Your task to perform on an android device: snooze an email in the gmail app Image 0: 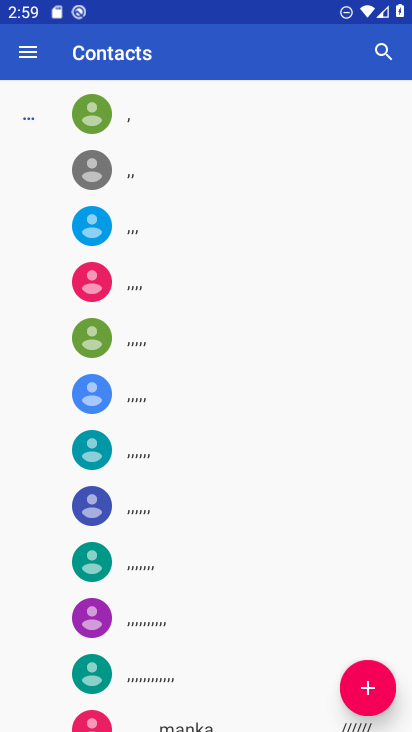
Step 0: press back button
Your task to perform on an android device: snooze an email in the gmail app Image 1: 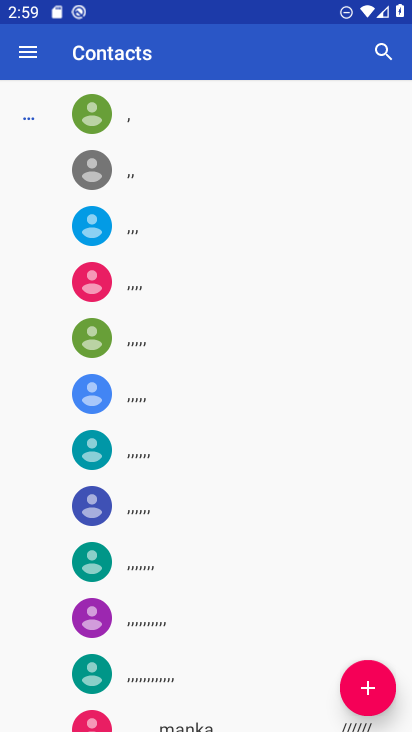
Step 1: press back button
Your task to perform on an android device: snooze an email in the gmail app Image 2: 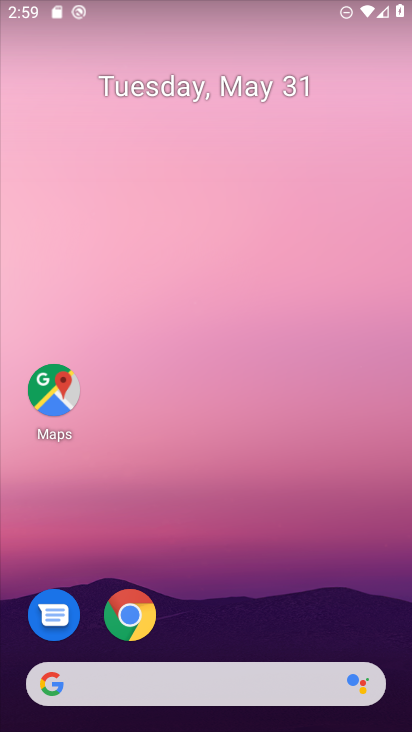
Step 2: drag from (236, 653) to (113, 139)
Your task to perform on an android device: snooze an email in the gmail app Image 3: 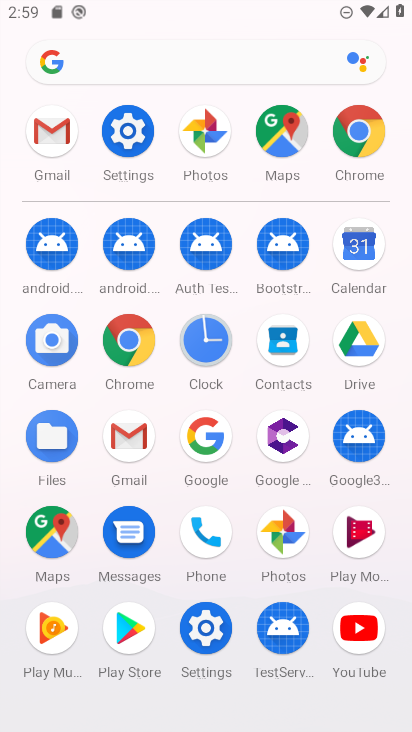
Step 3: click (128, 446)
Your task to perform on an android device: snooze an email in the gmail app Image 4: 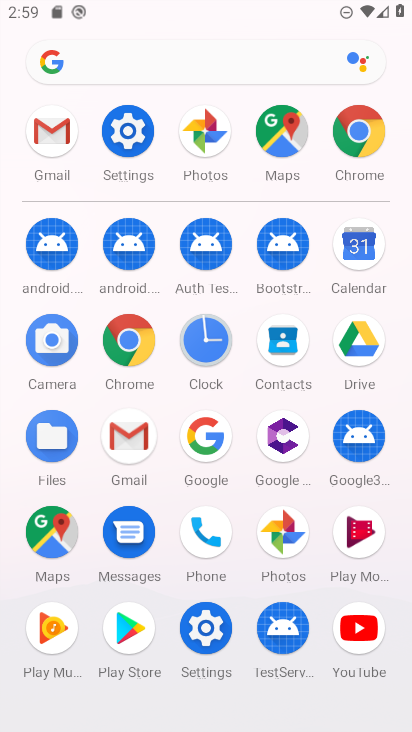
Step 4: click (130, 447)
Your task to perform on an android device: snooze an email in the gmail app Image 5: 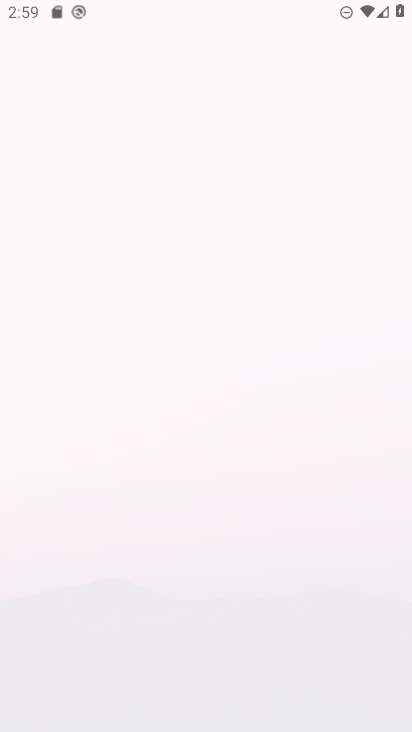
Step 5: click (136, 442)
Your task to perform on an android device: snooze an email in the gmail app Image 6: 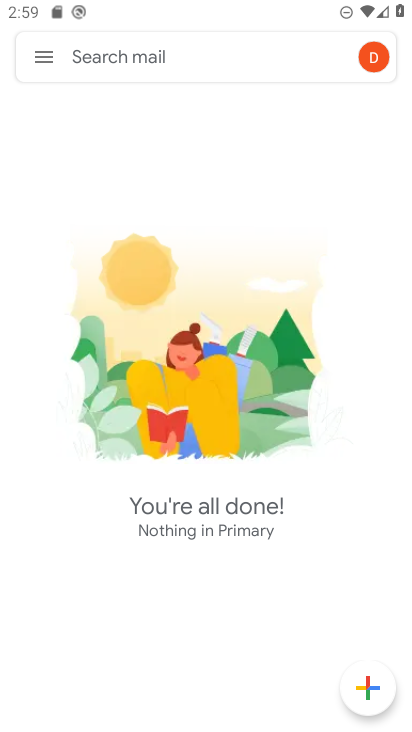
Step 6: click (55, 54)
Your task to perform on an android device: snooze an email in the gmail app Image 7: 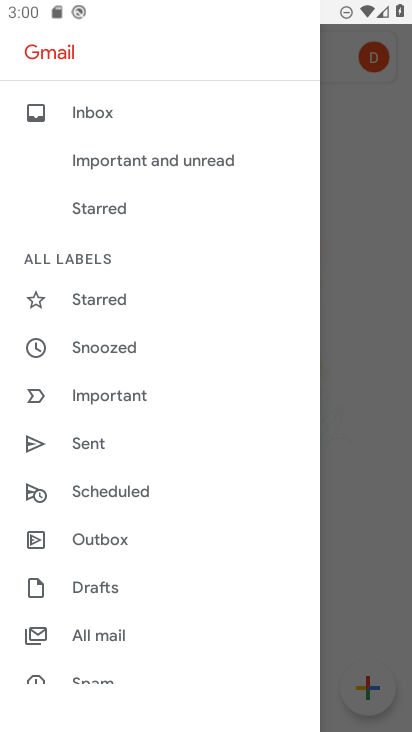
Step 7: drag from (108, 578) to (59, 80)
Your task to perform on an android device: snooze an email in the gmail app Image 8: 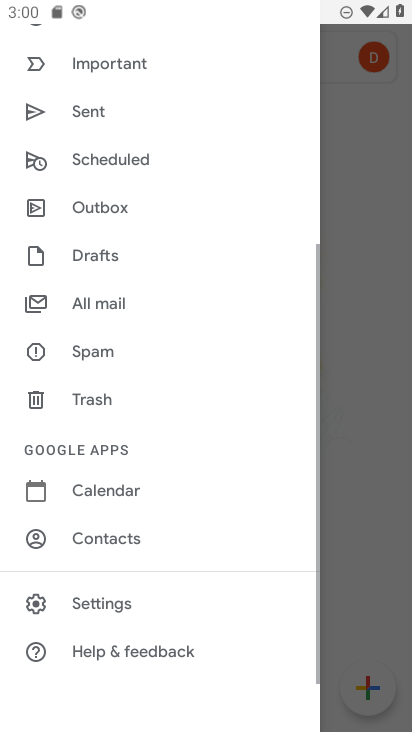
Step 8: drag from (121, 447) to (135, 105)
Your task to perform on an android device: snooze an email in the gmail app Image 9: 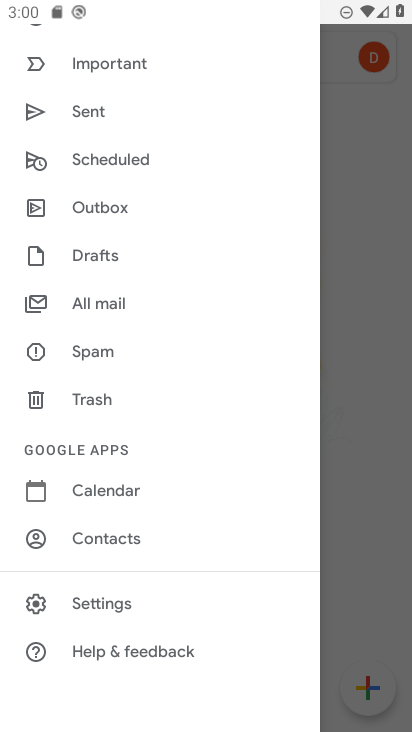
Step 9: drag from (87, 255) to (104, 602)
Your task to perform on an android device: snooze an email in the gmail app Image 10: 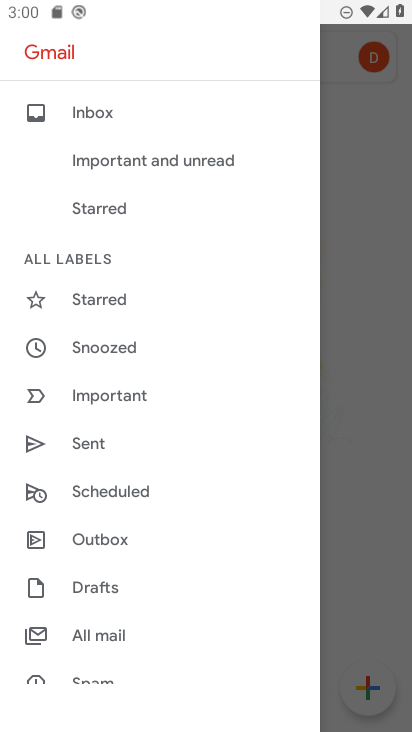
Step 10: click (101, 338)
Your task to perform on an android device: snooze an email in the gmail app Image 11: 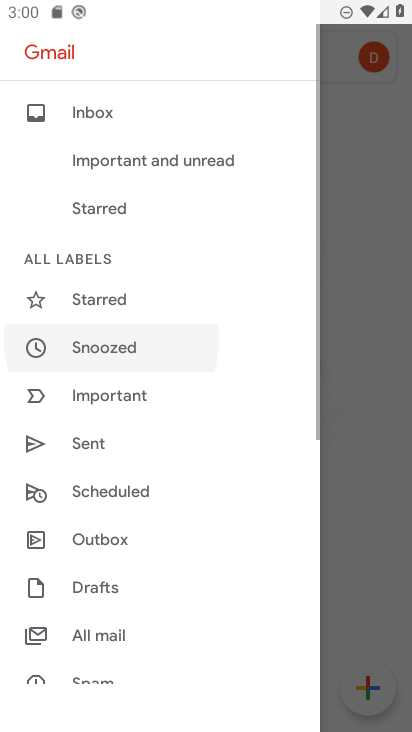
Step 11: click (101, 338)
Your task to perform on an android device: snooze an email in the gmail app Image 12: 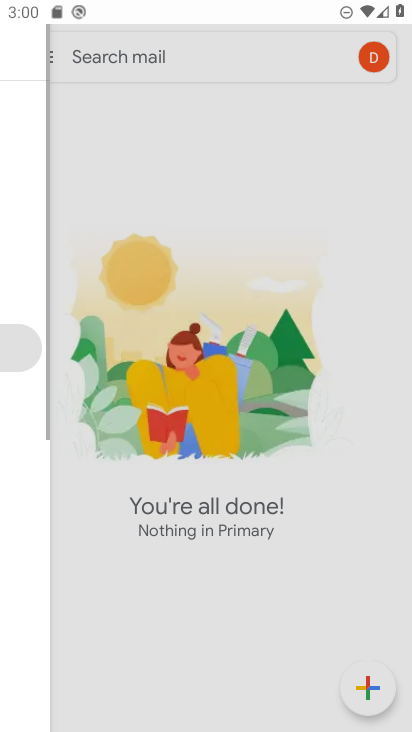
Step 12: click (101, 338)
Your task to perform on an android device: snooze an email in the gmail app Image 13: 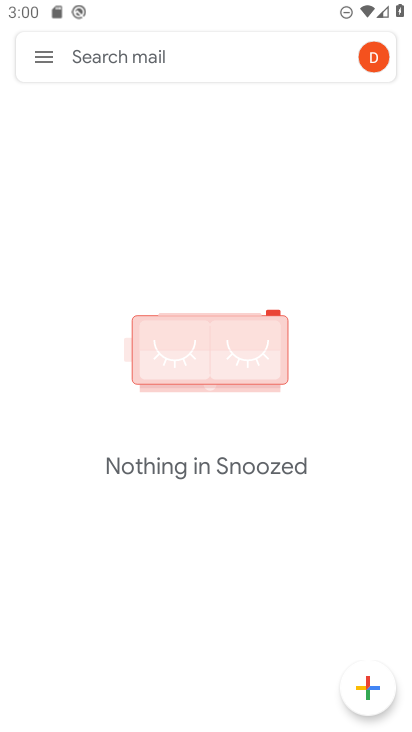
Step 13: task complete